Your task to perform on an android device: find photos in the google photos app Image 0: 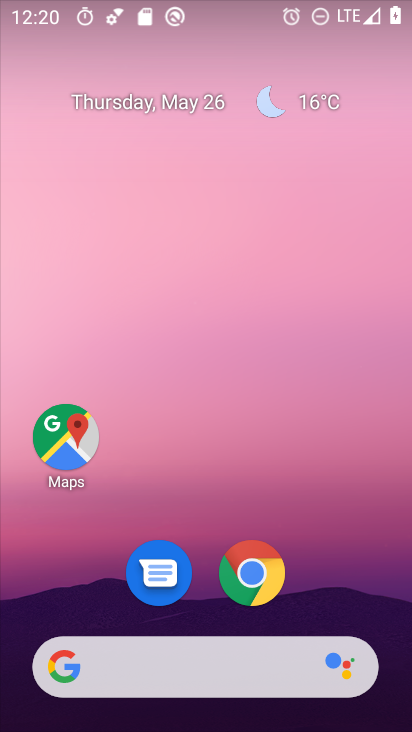
Step 0: drag from (363, 594) to (277, 3)
Your task to perform on an android device: find photos in the google photos app Image 1: 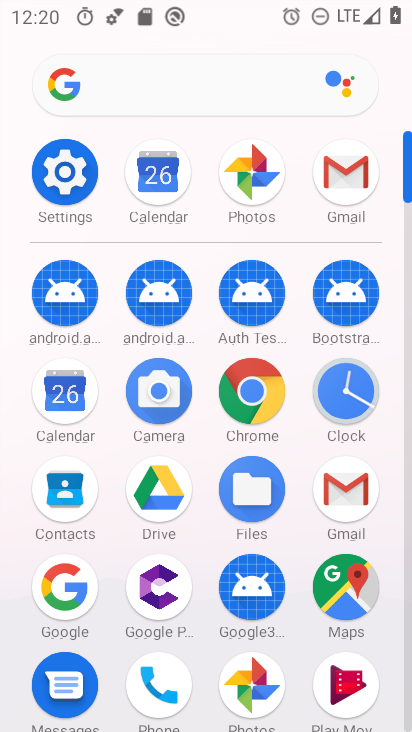
Step 1: click (241, 172)
Your task to perform on an android device: find photos in the google photos app Image 2: 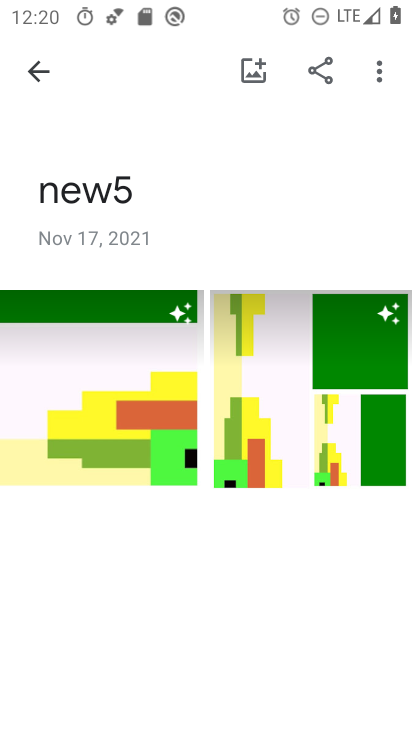
Step 2: click (32, 59)
Your task to perform on an android device: find photos in the google photos app Image 3: 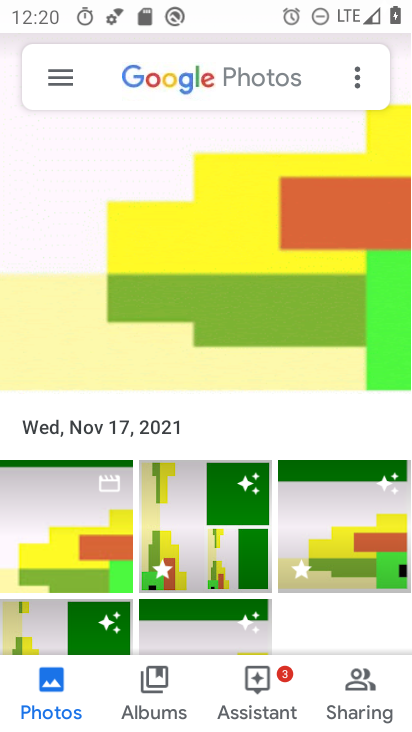
Step 3: click (57, 710)
Your task to perform on an android device: find photos in the google photos app Image 4: 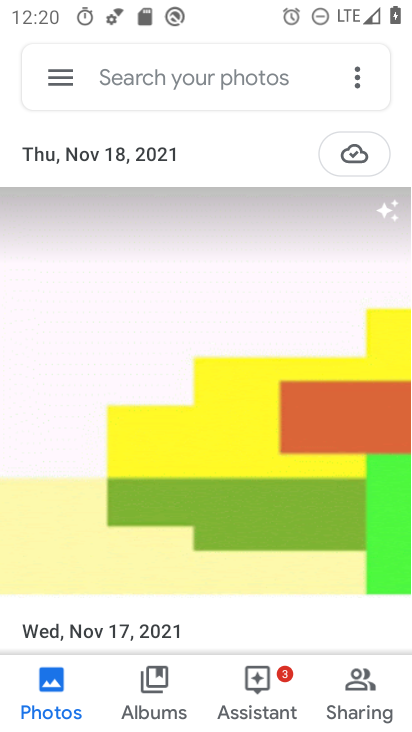
Step 4: task complete